Your task to perform on an android device: Empty the shopping cart on newegg. Image 0: 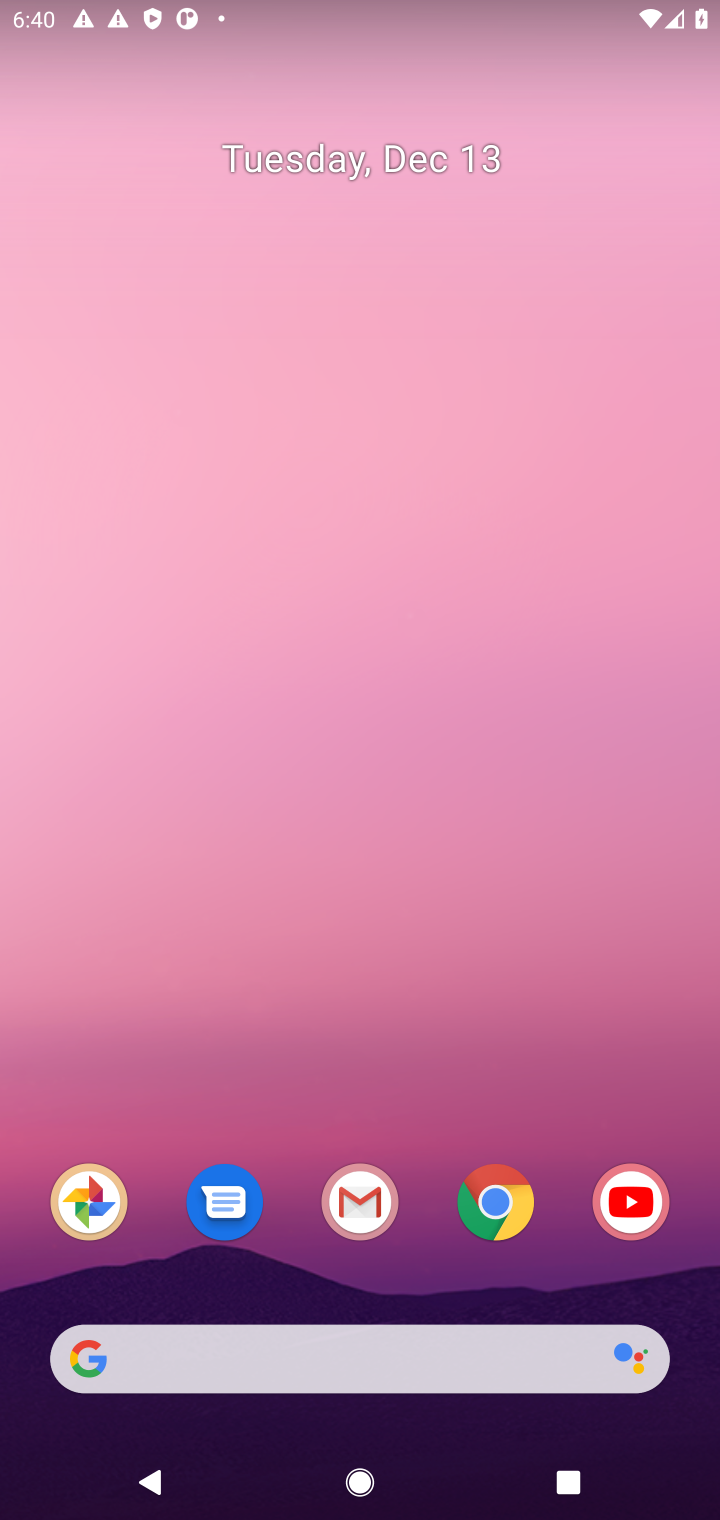
Step 0: click (490, 1220)
Your task to perform on an android device: Empty the shopping cart on newegg. Image 1: 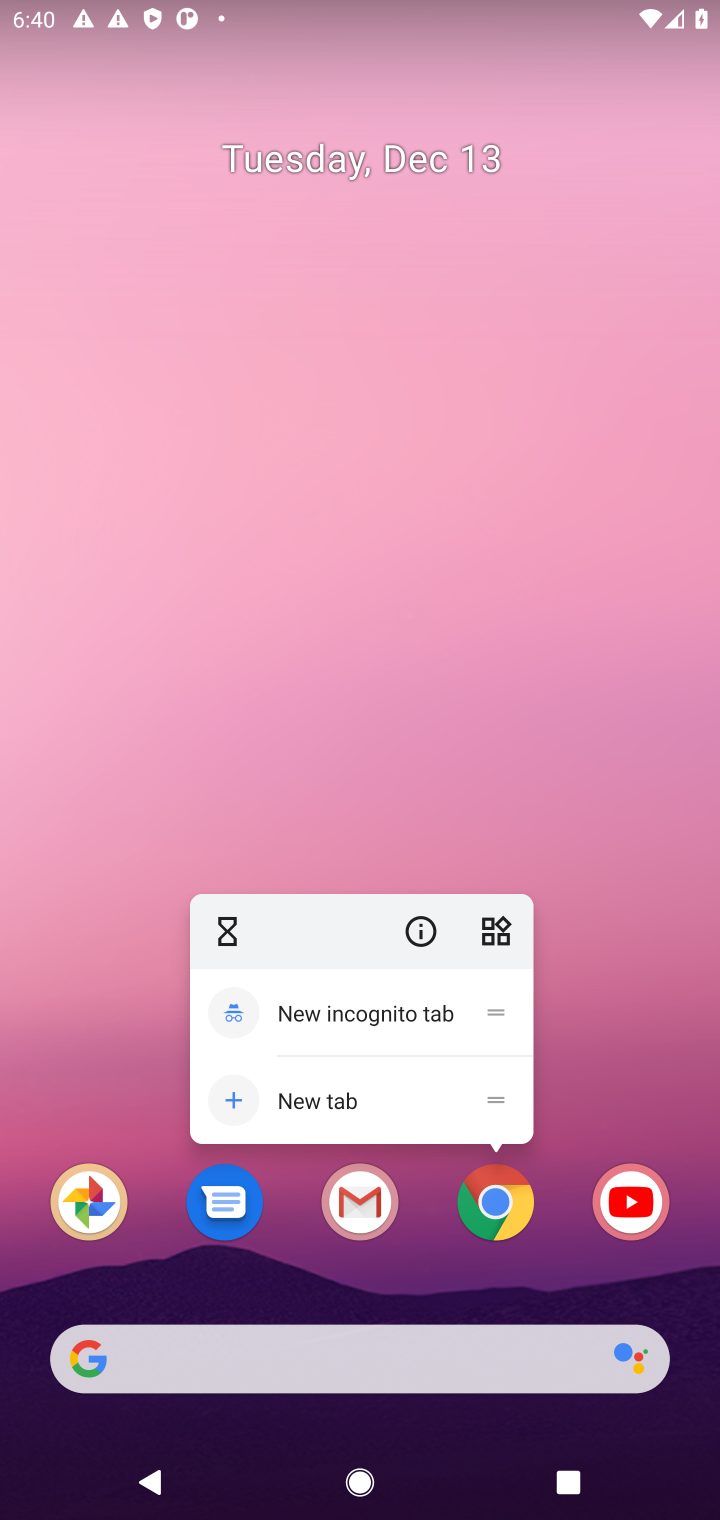
Step 1: click (507, 1209)
Your task to perform on an android device: Empty the shopping cart on newegg. Image 2: 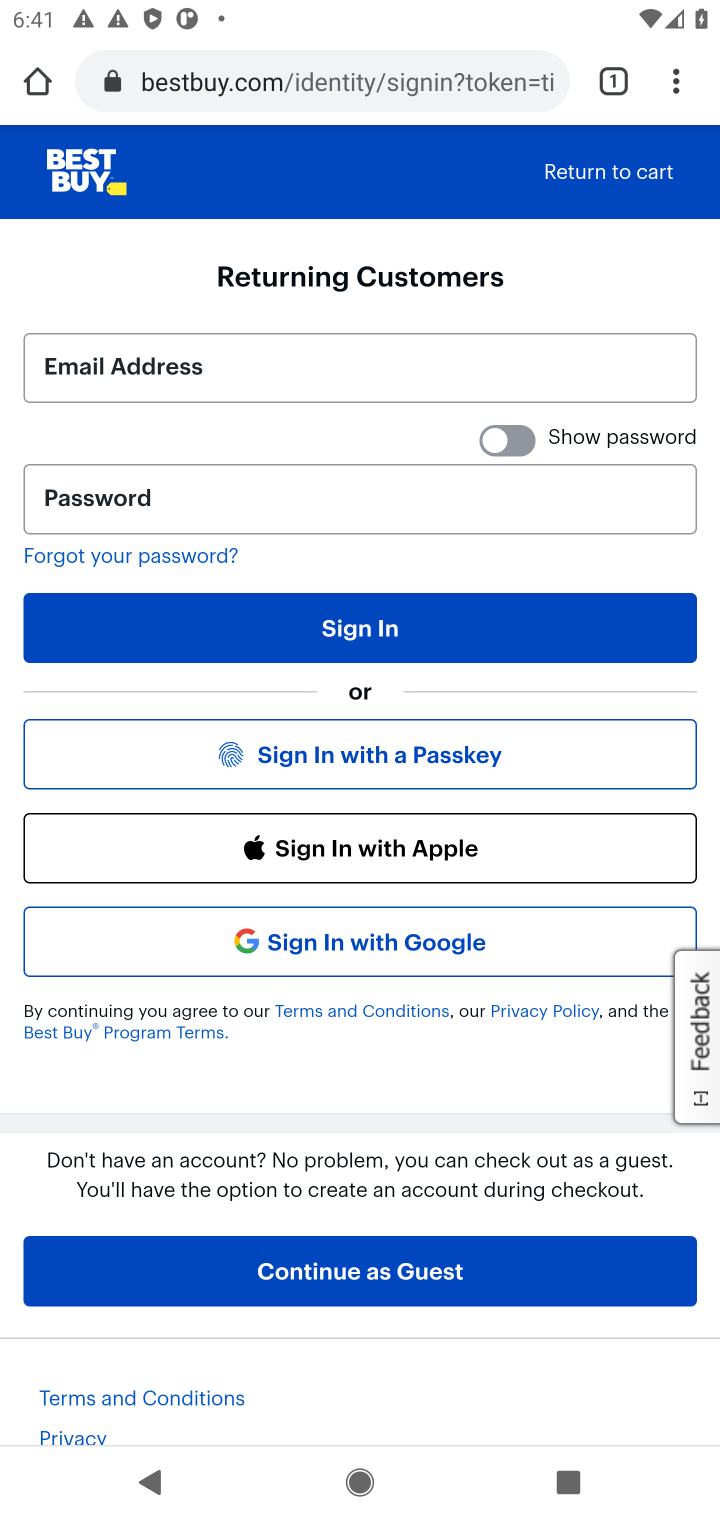
Step 2: click (280, 77)
Your task to perform on an android device: Empty the shopping cart on newegg. Image 3: 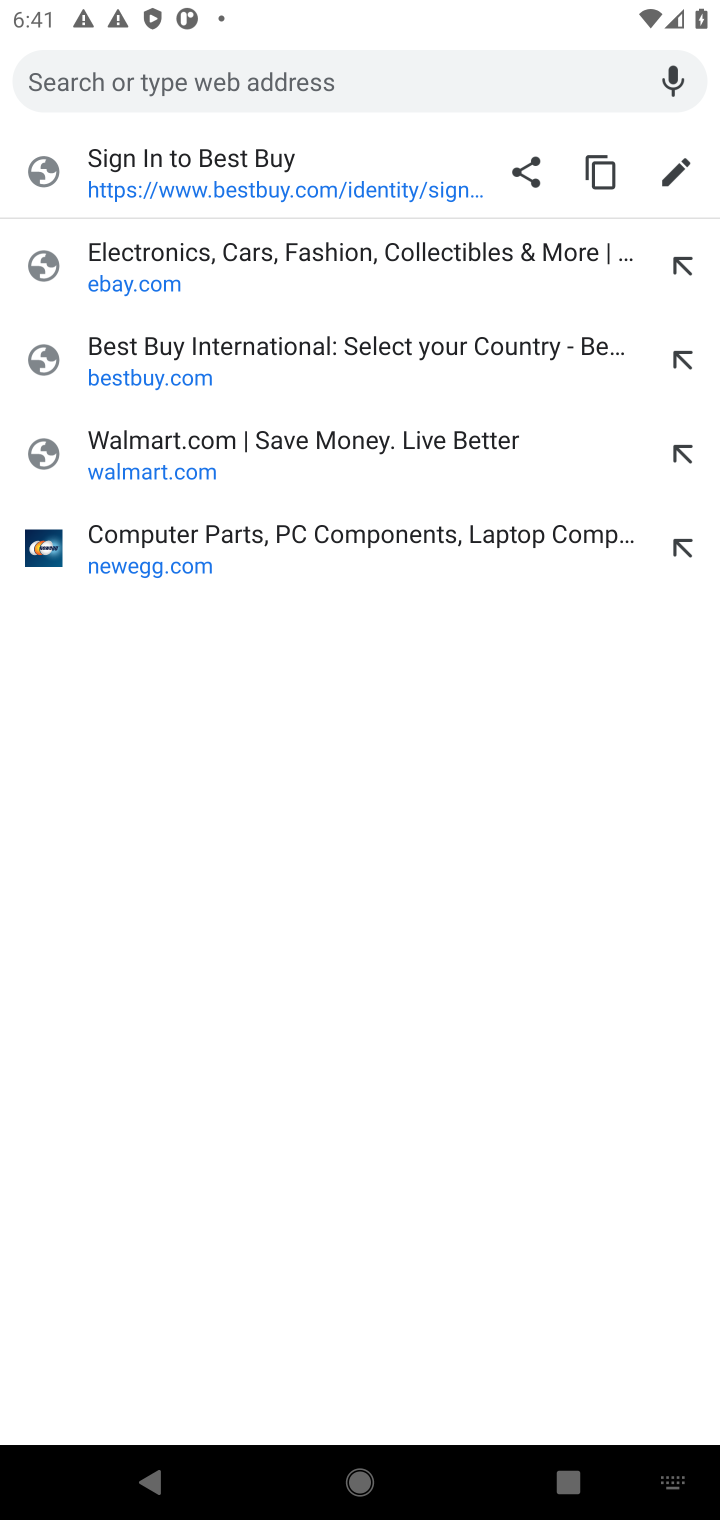
Step 3: click (152, 549)
Your task to perform on an android device: Empty the shopping cart on newegg. Image 4: 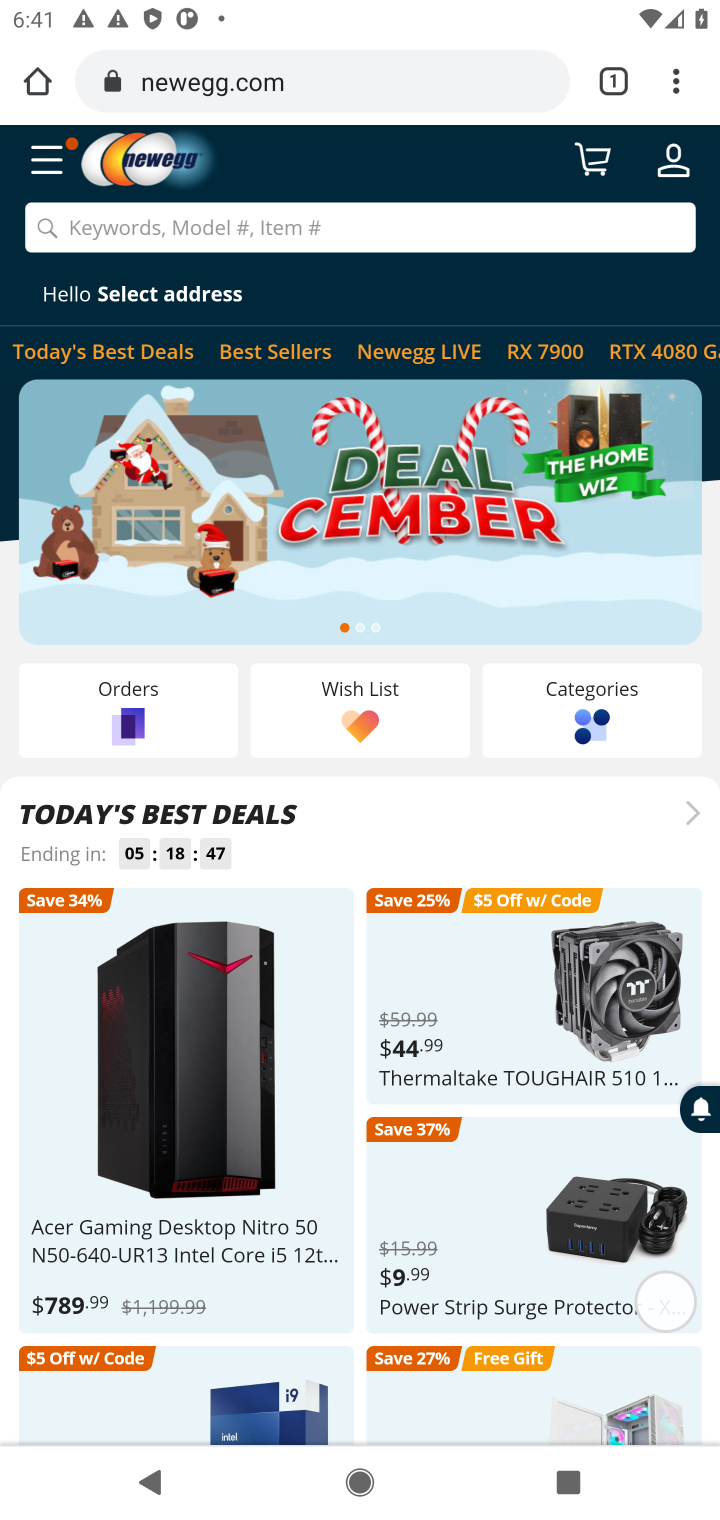
Step 4: click (594, 162)
Your task to perform on an android device: Empty the shopping cart on newegg. Image 5: 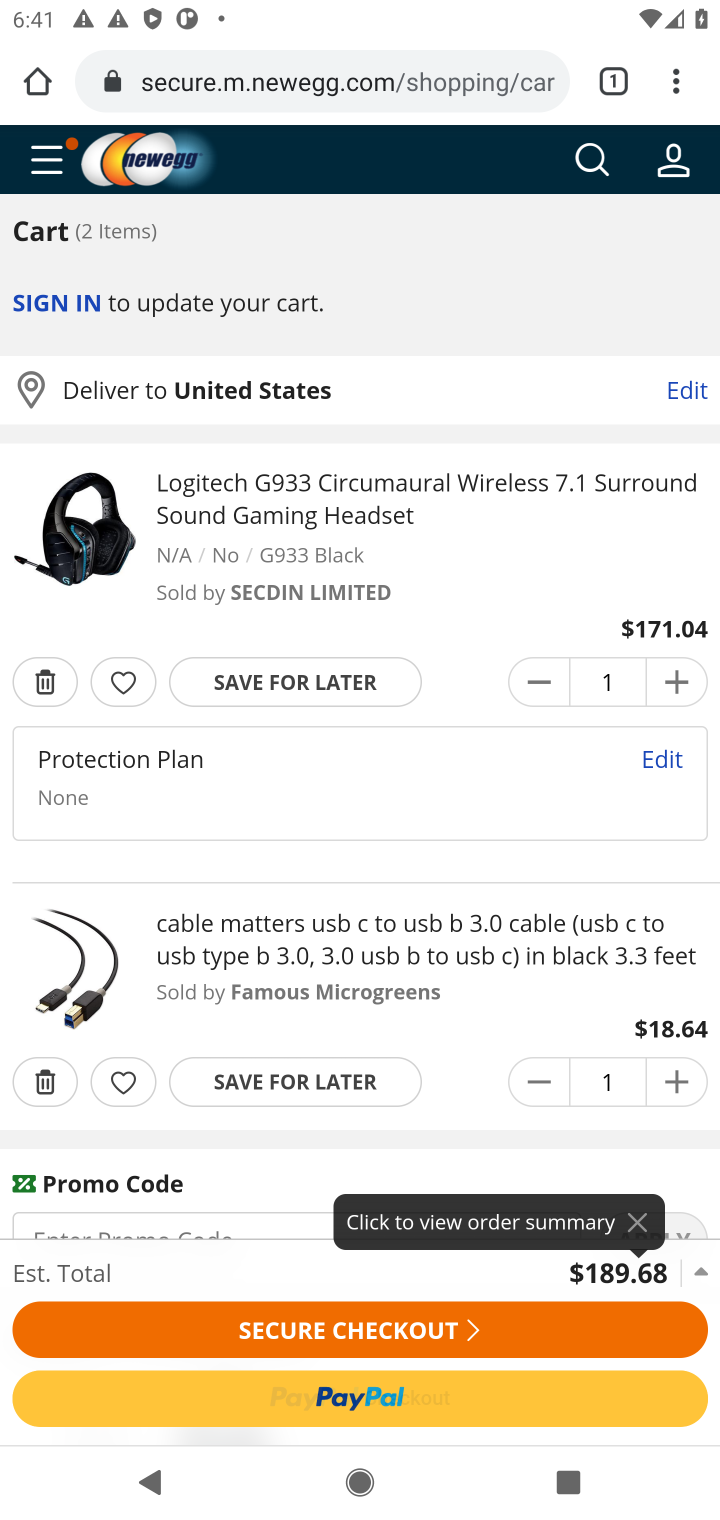
Step 5: click (48, 688)
Your task to perform on an android device: Empty the shopping cart on newegg. Image 6: 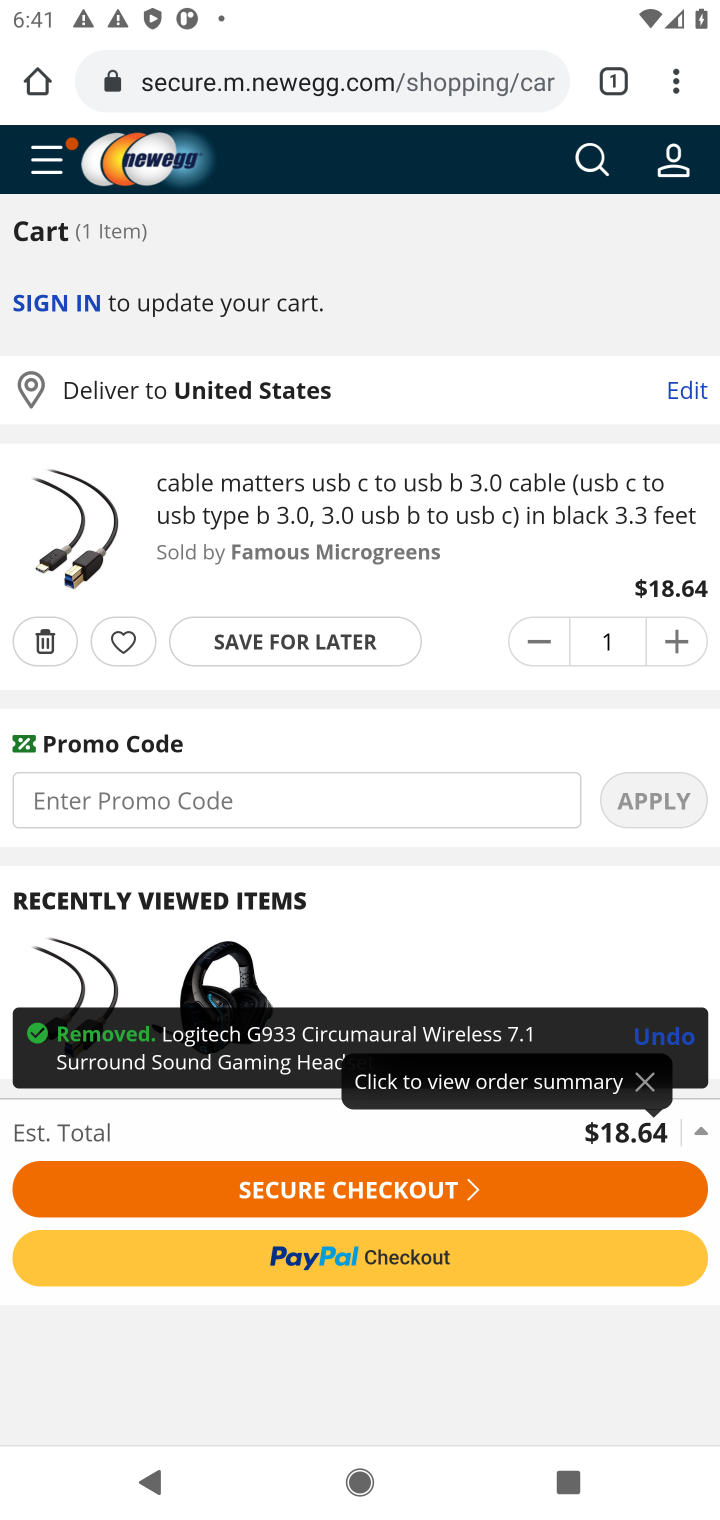
Step 6: click (38, 646)
Your task to perform on an android device: Empty the shopping cart on newegg. Image 7: 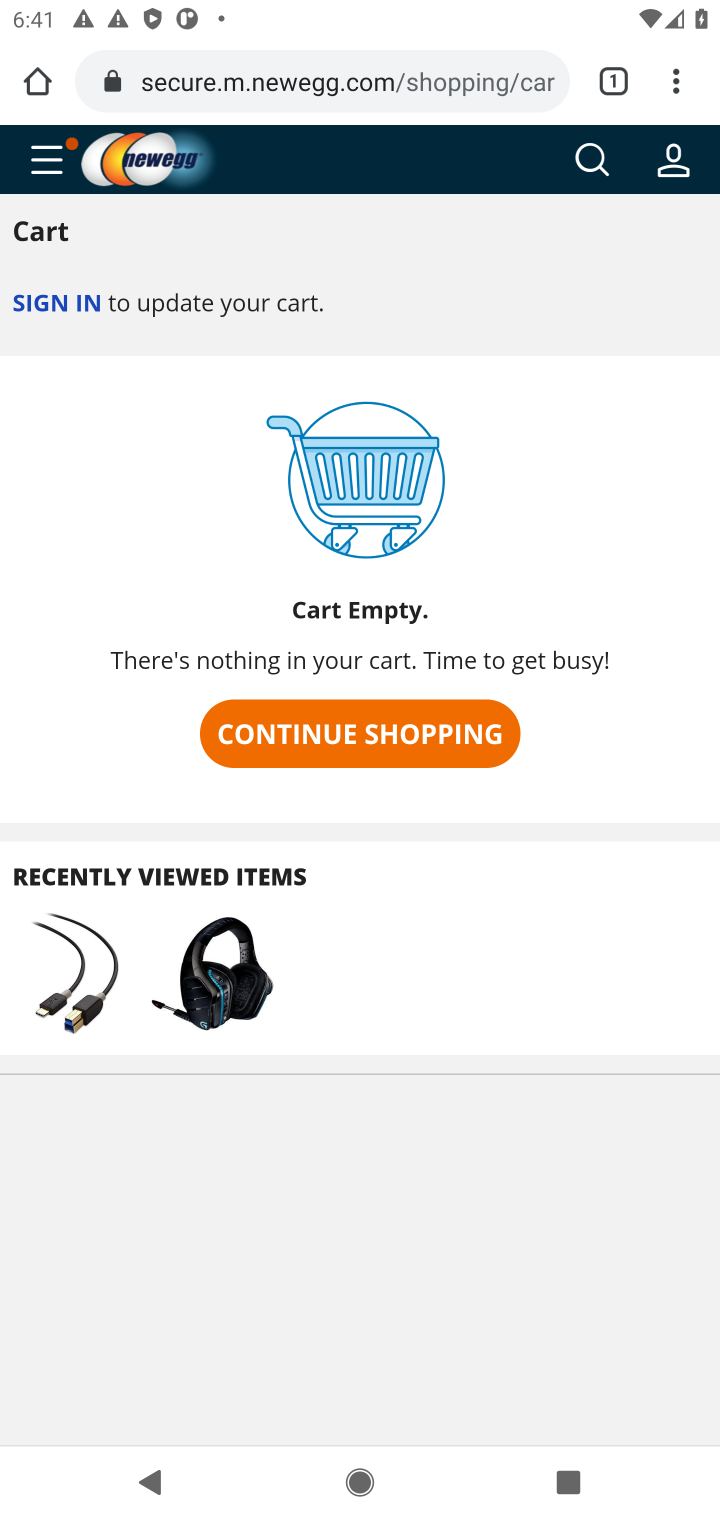
Step 7: task complete